Your task to perform on an android device: turn on translation in the chrome app Image 0: 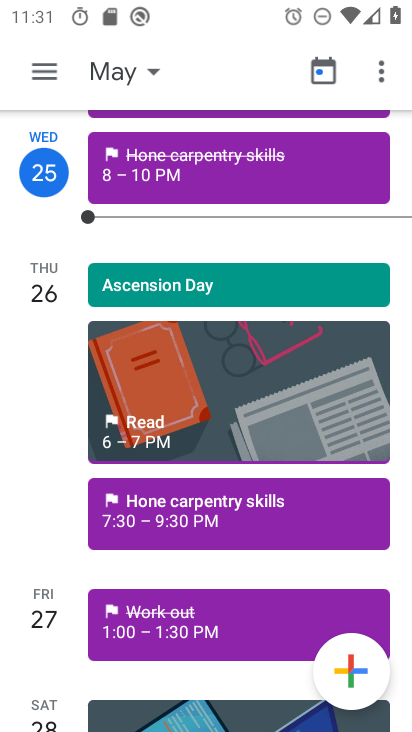
Step 0: press home button
Your task to perform on an android device: turn on translation in the chrome app Image 1: 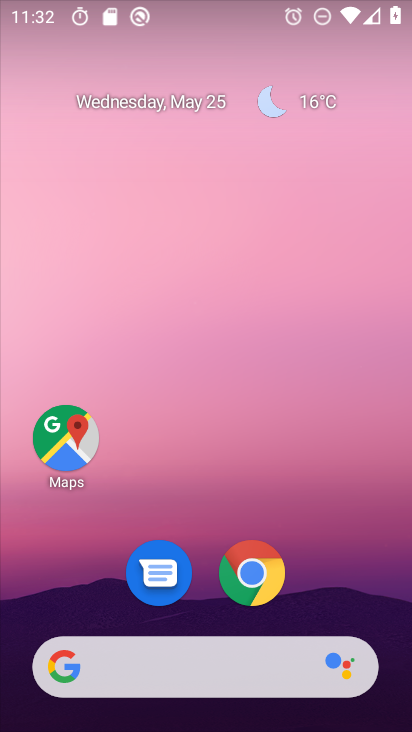
Step 1: click (258, 580)
Your task to perform on an android device: turn on translation in the chrome app Image 2: 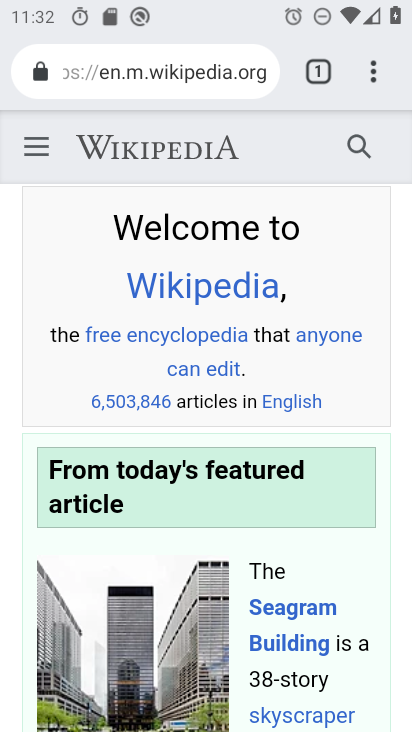
Step 2: click (373, 70)
Your task to perform on an android device: turn on translation in the chrome app Image 3: 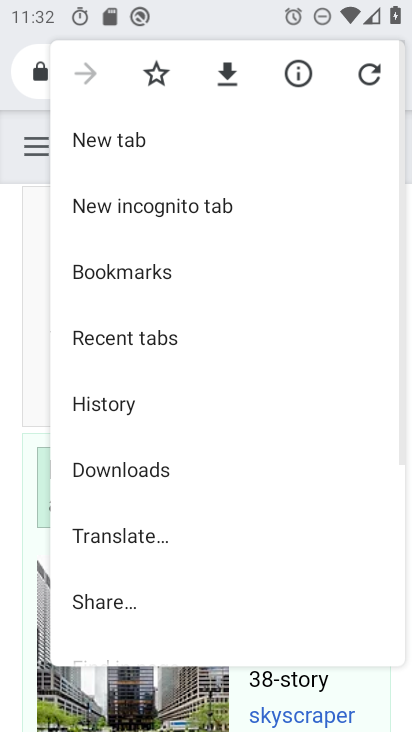
Step 3: drag from (223, 564) to (243, 318)
Your task to perform on an android device: turn on translation in the chrome app Image 4: 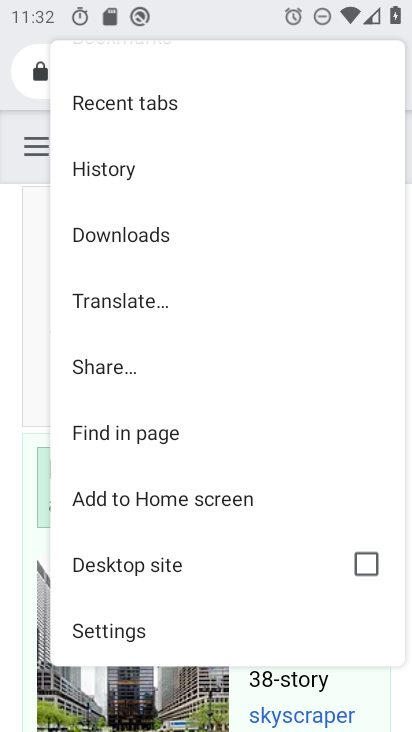
Step 4: click (115, 630)
Your task to perform on an android device: turn on translation in the chrome app Image 5: 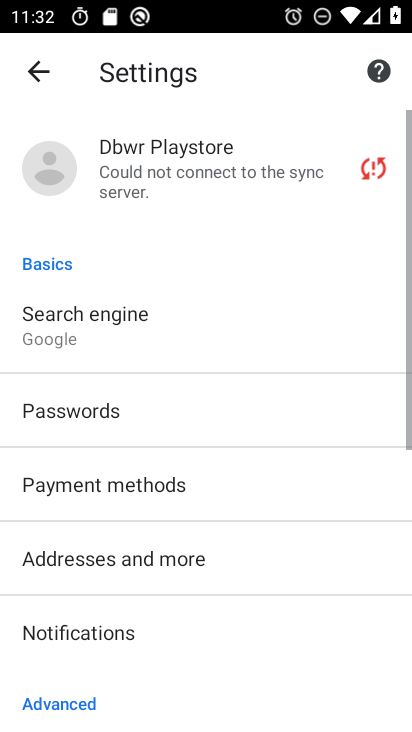
Step 5: drag from (188, 591) to (223, 282)
Your task to perform on an android device: turn on translation in the chrome app Image 6: 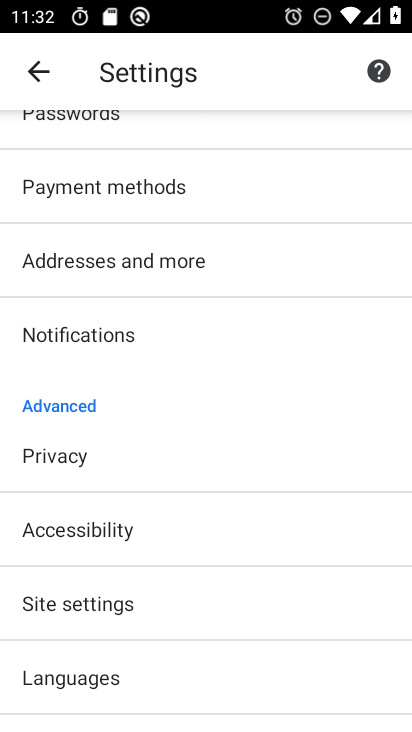
Step 6: click (85, 680)
Your task to perform on an android device: turn on translation in the chrome app Image 7: 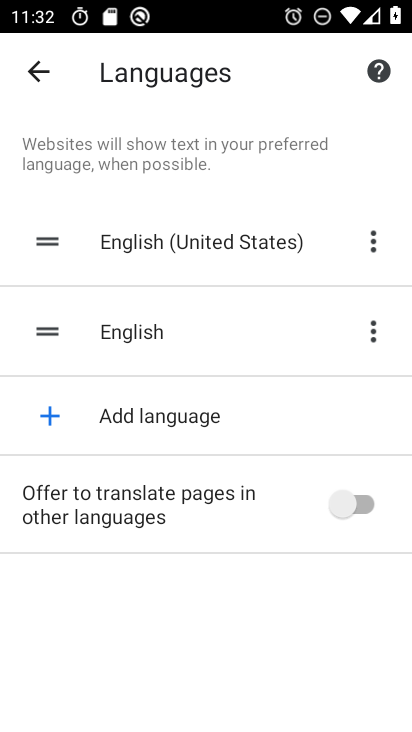
Step 7: click (346, 512)
Your task to perform on an android device: turn on translation in the chrome app Image 8: 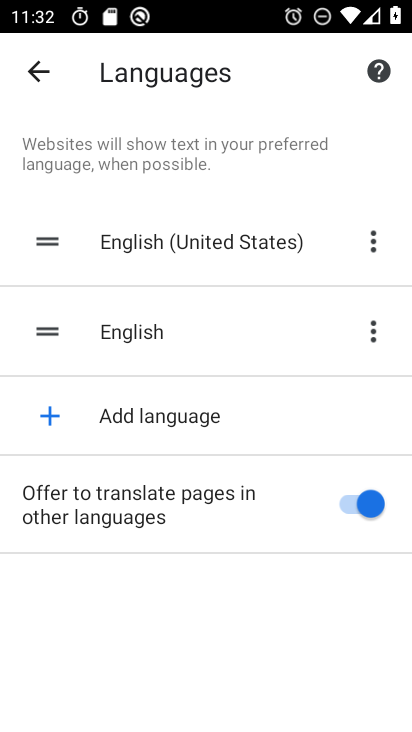
Step 8: task complete